Your task to perform on an android device: Search for seafood restaurants on Google Maps Image 0: 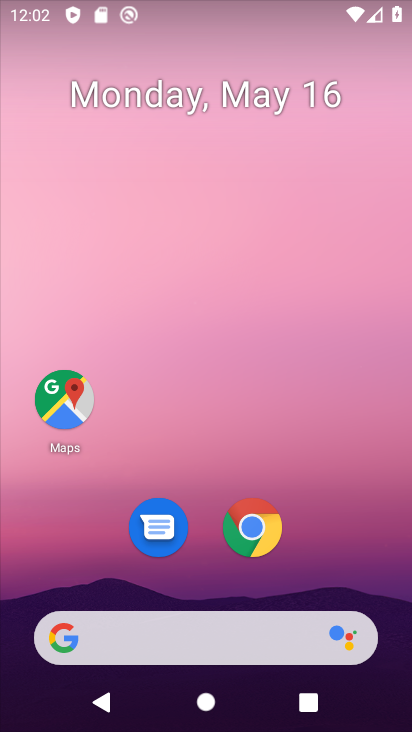
Step 0: click (63, 408)
Your task to perform on an android device: Search for seafood restaurants on Google Maps Image 1: 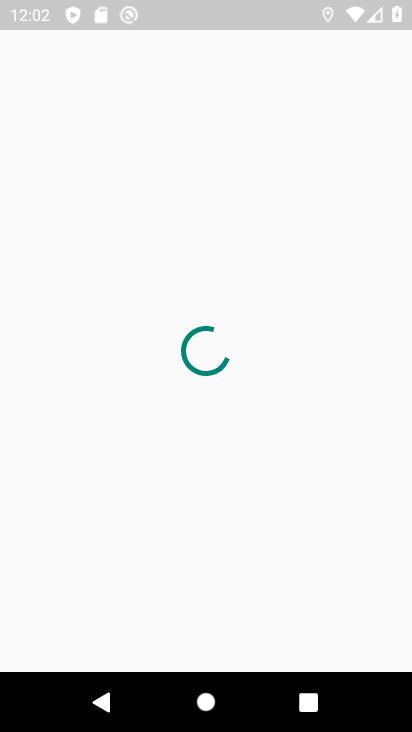
Step 1: click (135, 79)
Your task to perform on an android device: Search for seafood restaurants on Google Maps Image 2: 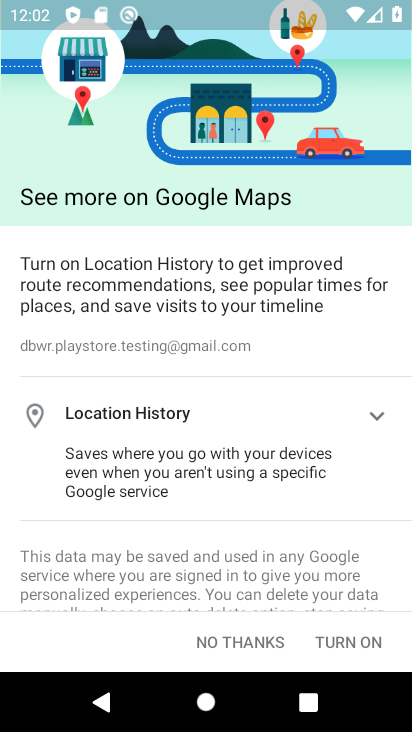
Step 2: click (237, 659)
Your task to perform on an android device: Search for seafood restaurants on Google Maps Image 3: 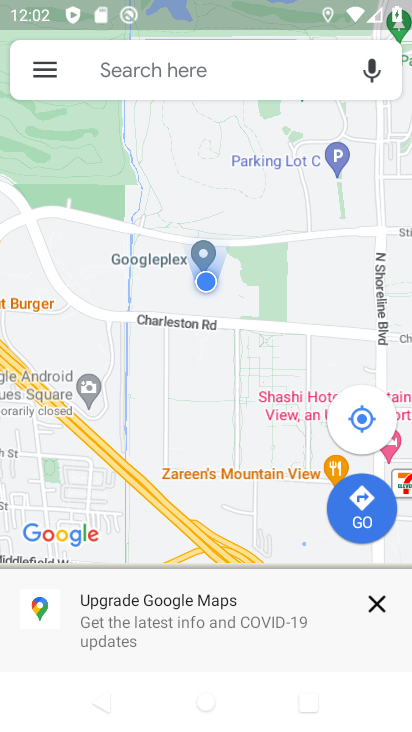
Step 3: click (162, 63)
Your task to perform on an android device: Search for seafood restaurants on Google Maps Image 4: 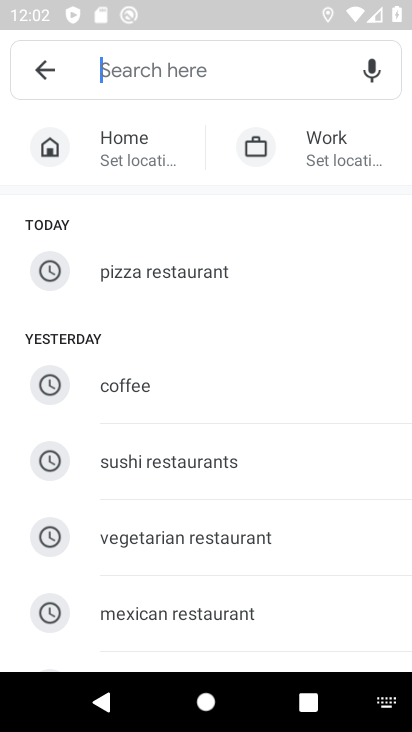
Step 4: type "seafood restaurants"
Your task to perform on an android device: Search for seafood restaurants on Google Maps Image 5: 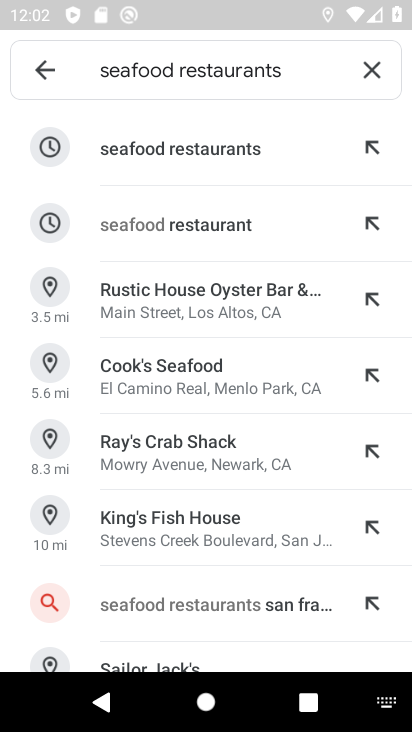
Step 5: click (154, 154)
Your task to perform on an android device: Search for seafood restaurants on Google Maps Image 6: 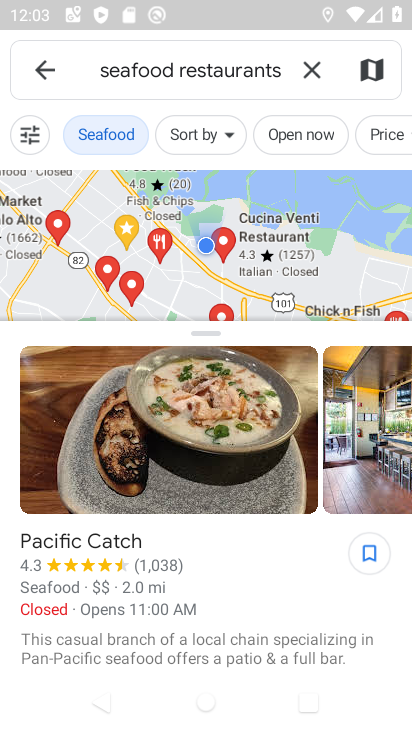
Step 6: task complete